Your task to perform on an android device: Search for Mexican restaurants on Maps Image 0: 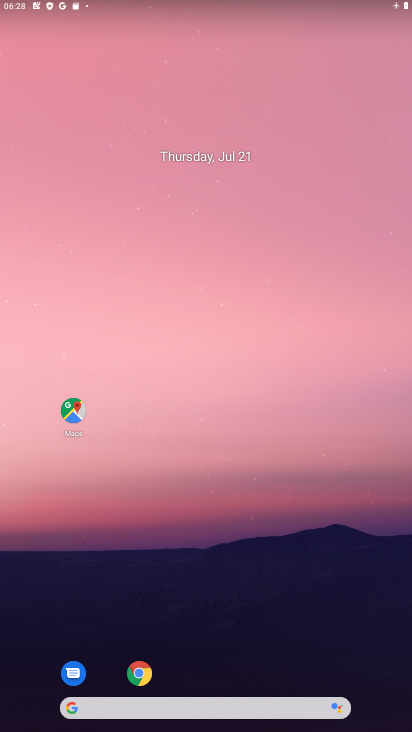
Step 0: click (78, 422)
Your task to perform on an android device: Search for Mexican restaurants on Maps Image 1: 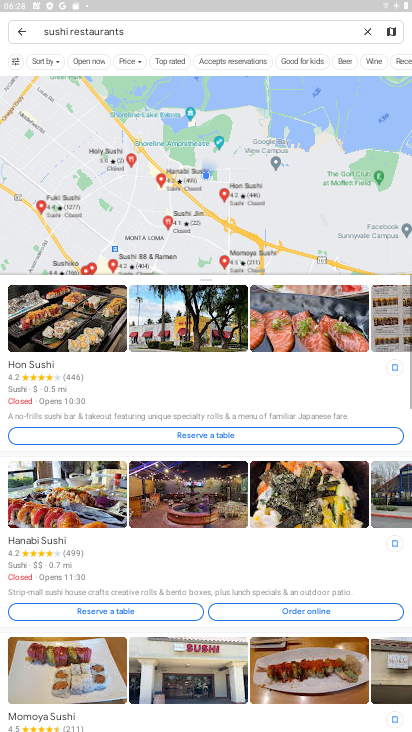
Step 1: click (366, 30)
Your task to perform on an android device: Search for Mexican restaurants on Maps Image 2: 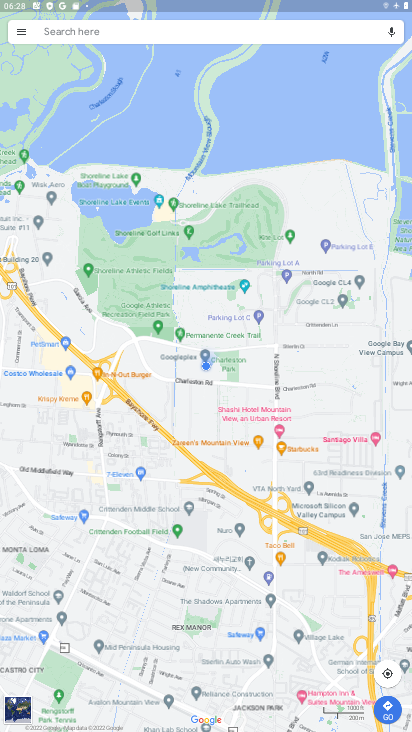
Step 2: click (225, 30)
Your task to perform on an android device: Search for Mexican restaurants on Maps Image 3: 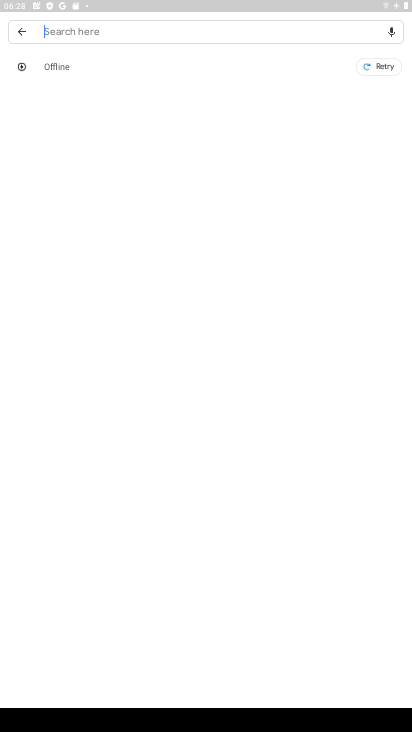
Step 3: type "mexican restaurants"
Your task to perform on an android device: Search for Mexican restaurants on Maps Image 4: 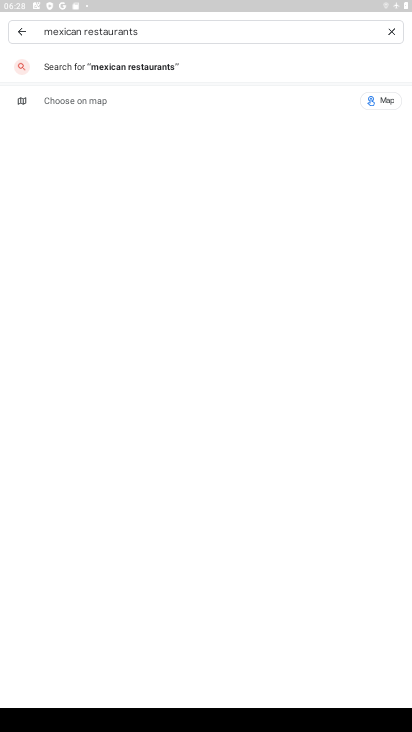
Step 4: click (153, 63)
Your task to perform on an android device: Search for Mexican restaurants on Maps Image 5: 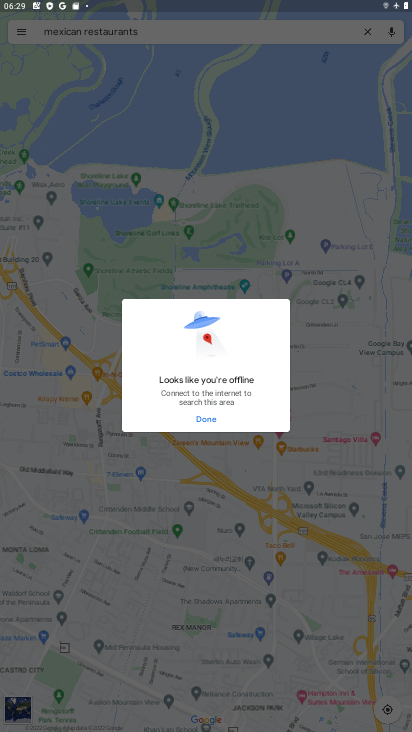
Step 5: task complete